Your task to perform on an android device: What is the news today? Image 0: 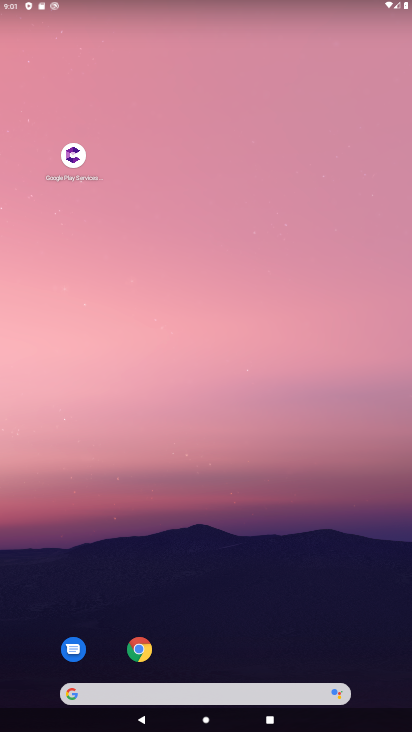
Step 0: drag from (3, 357) to (399, 319)
Your task to perform on an android device: What is the news today? Image 1: 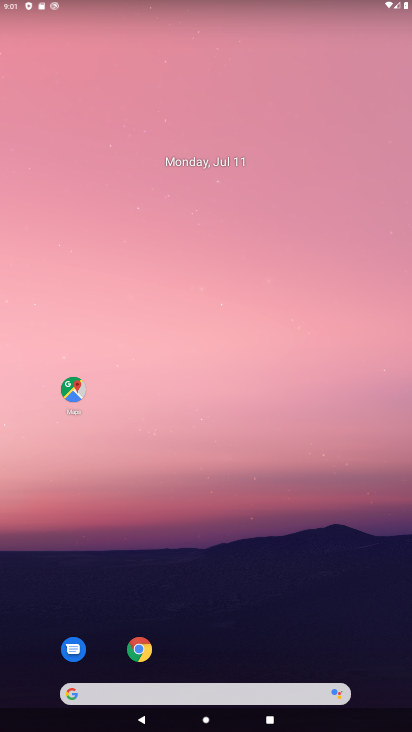
Step 1: task complete